Your task to perform on an android device: check storage Image 0: 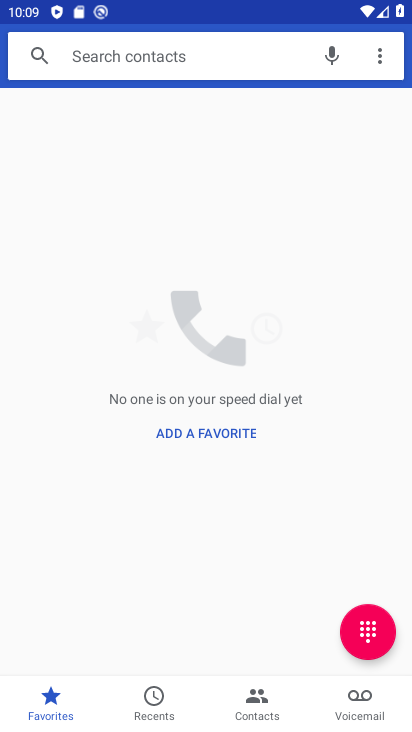
Step 0: press home button
Your task to perform on an android device: check storage Image 1: 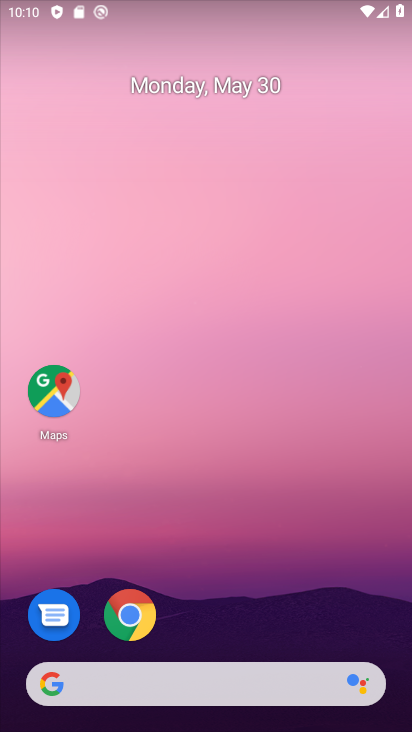
Step 1: drag from (211, 726) to (222, 22)
Your task to perform on an android device: check storage Image 2: 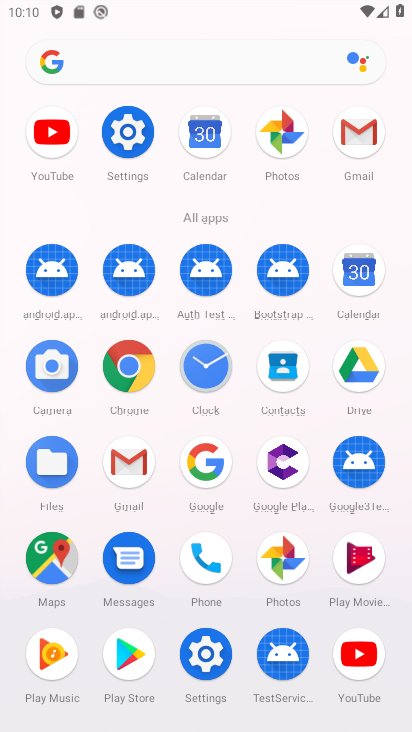
Step 2: click (136, 140)
Your task to perform on an android device: check storage Image 3: 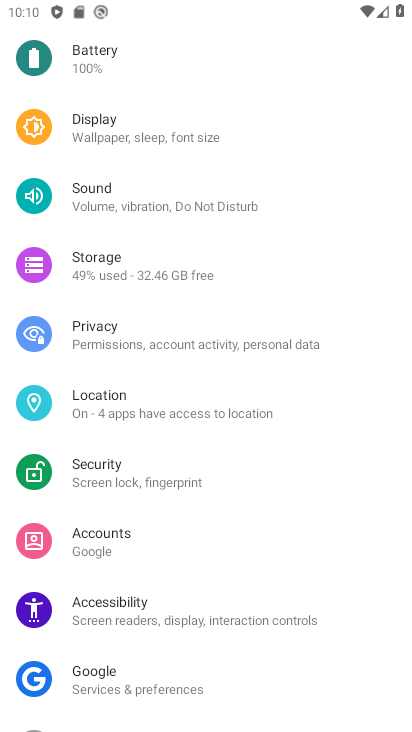
Step 3: click (100, 268)
Your task to perform on an android device: check storage Image 4: 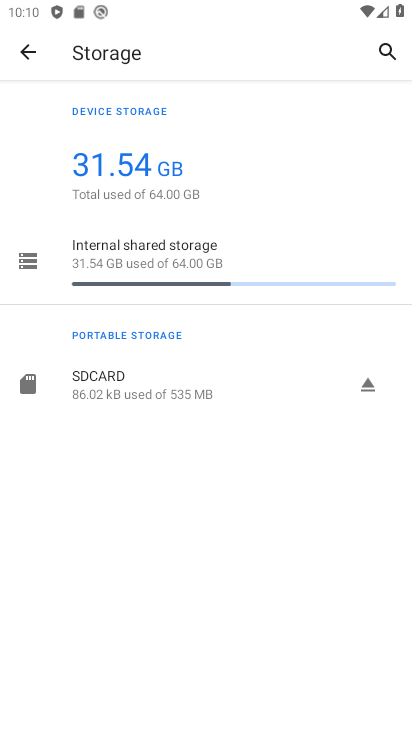
Step 4: task complete